Your task to perform on an android device: Open Google Chrome Image 0: 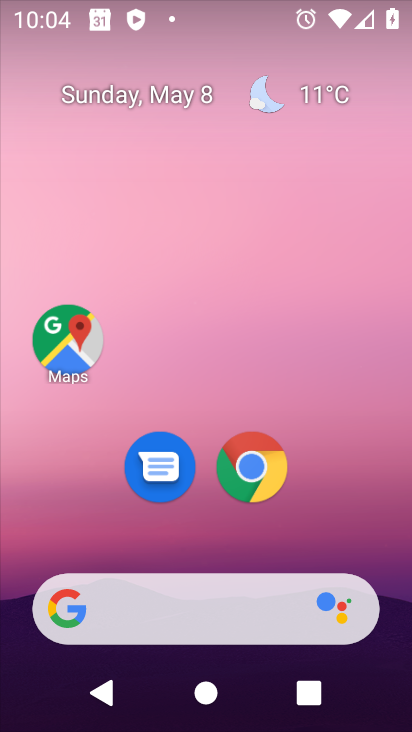
Step 0: click (259, 461)
Your task to perform on an android device: Open Google Chrome Image 1: 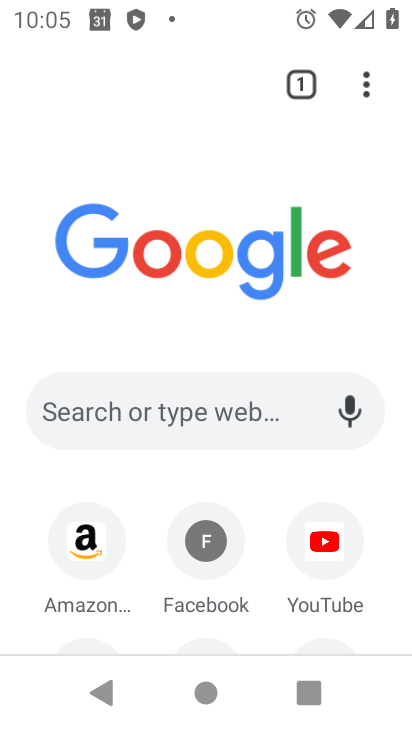
Step 1: task complete